Your task to perform on an android device: turn vacation reply on in the gmail app Image 0: 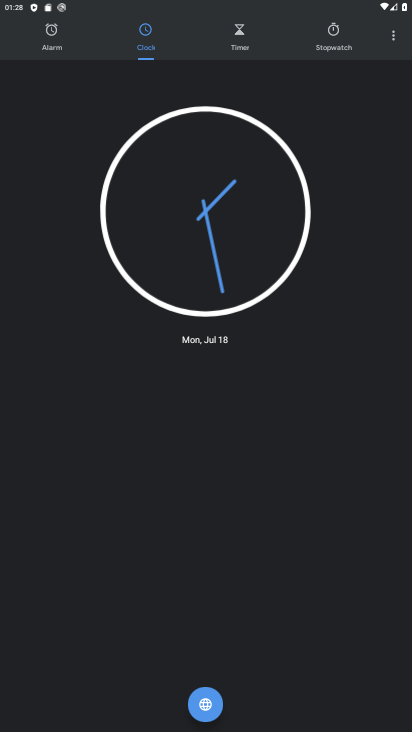
Step 0: press home button
Your task to perform on an android device: turn vacation reply on in the gmail app Image 1: 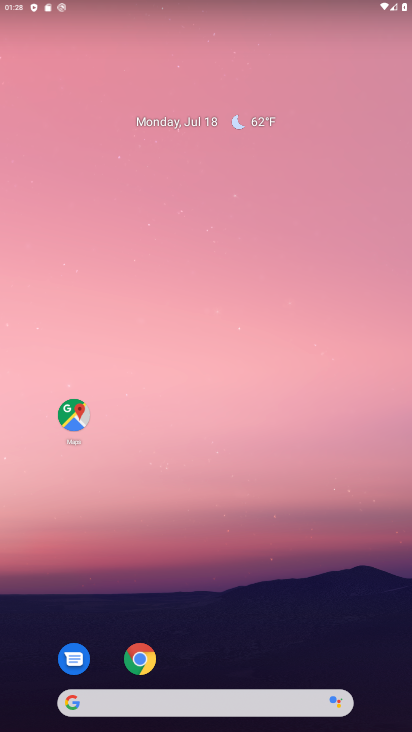
Step 1: drag from (295, 607) to (228, 2)
Your task to perform on an android device: turn vacation reply on in the gmail app Image 2: 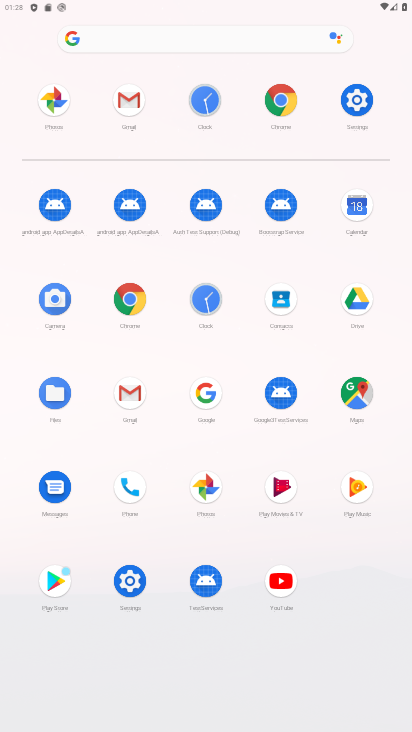
Step 2: click (125, 92)
Your task to perform on an android device: turn vacation reply on in the gmail app Image 3: 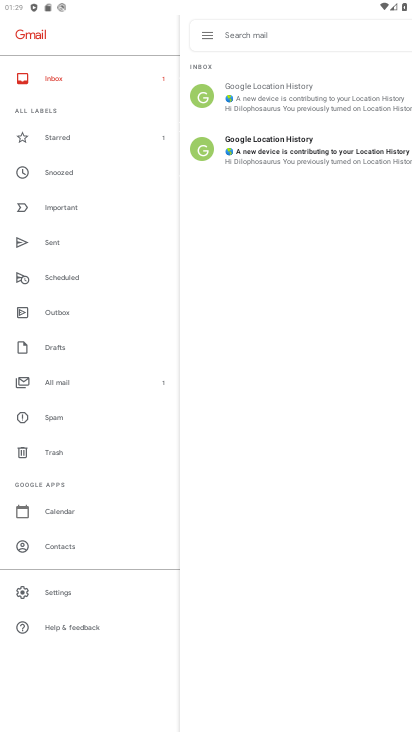
Step 3: click (58, 592)
Your task to perform on an android device: turn vacation reply on in the gmail app Image 4: 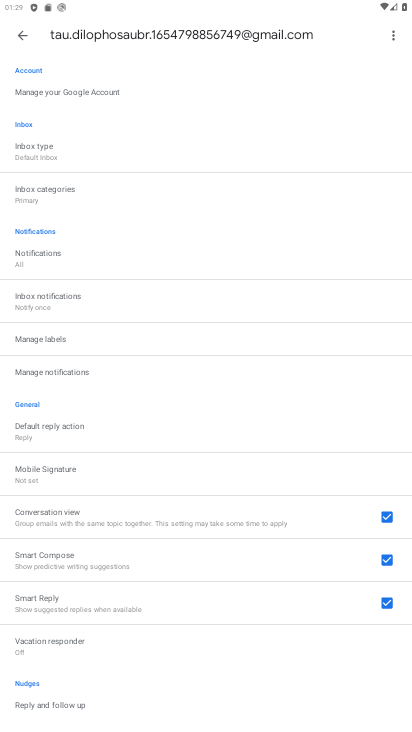
Step 4: click (106, 648)
Your task to perform on an android device: turn vacation reply on in the gmail app Image 5: 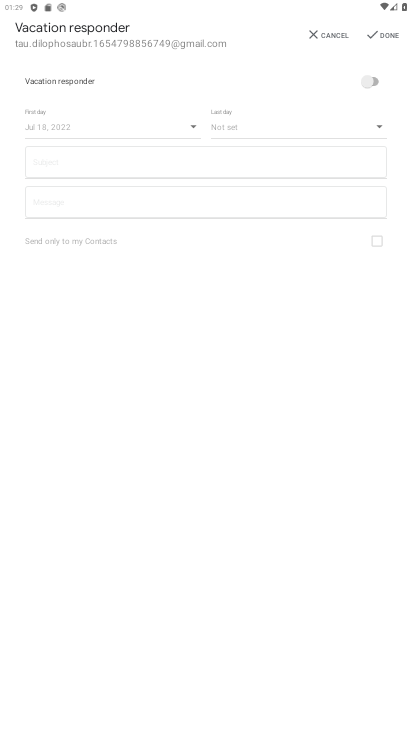
Step 5: click (388, 79)
Your task to perform on an android device: turn vacation reply on in the gmail app Image 6: 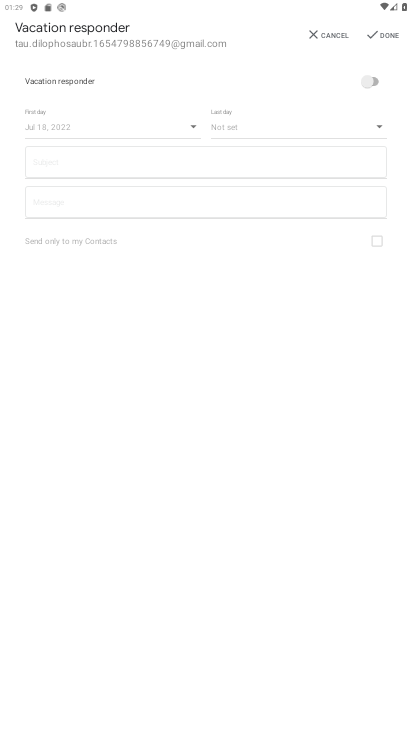
Step 6: click (380, 81)
Your task to perform on an android device: turn vacation reply on in the gmail app Image 7: 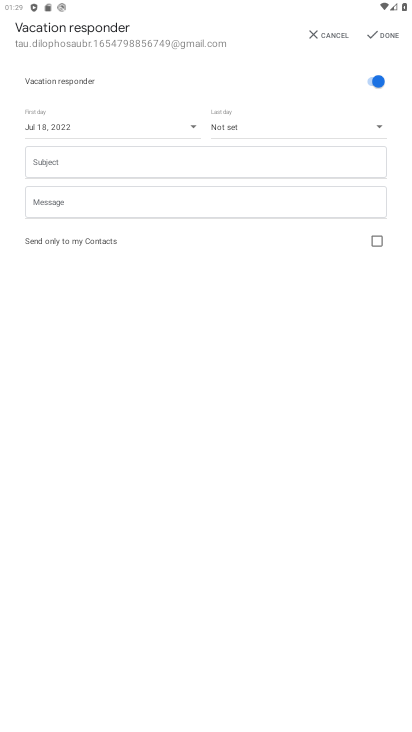
Step 7: task complete